Your task to perform on an android device: turn off sleep mode Image 0: 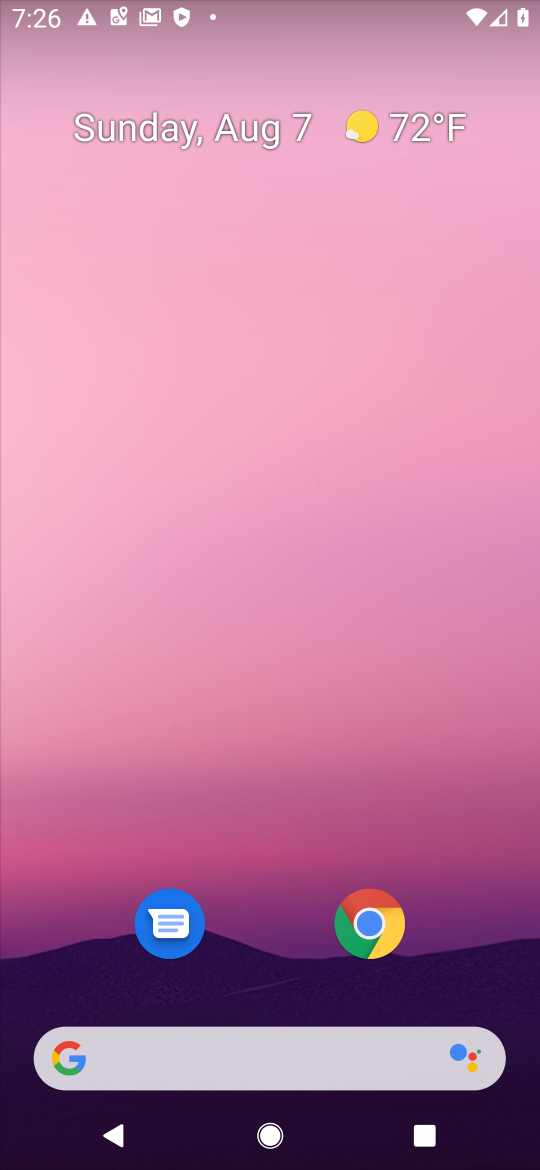
Step 0: drag from (538, 983) to (311, 0)
Your task to perform on an android device: turn off sleep mode Image 1: 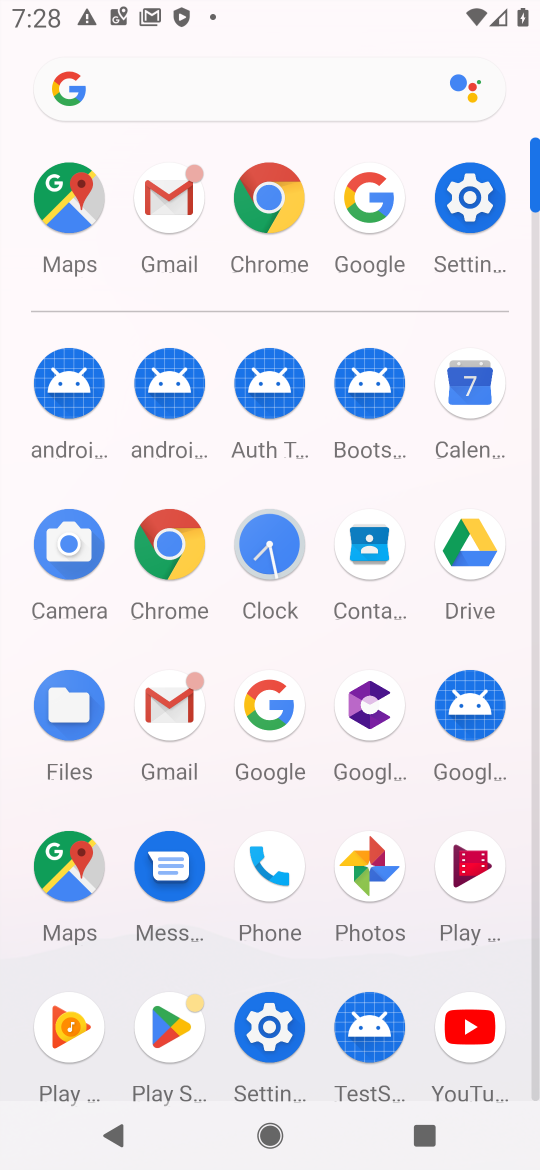
Step 1: click (266, 1060)
Your task to perform on an android device: turn off sleep mode Image 2: 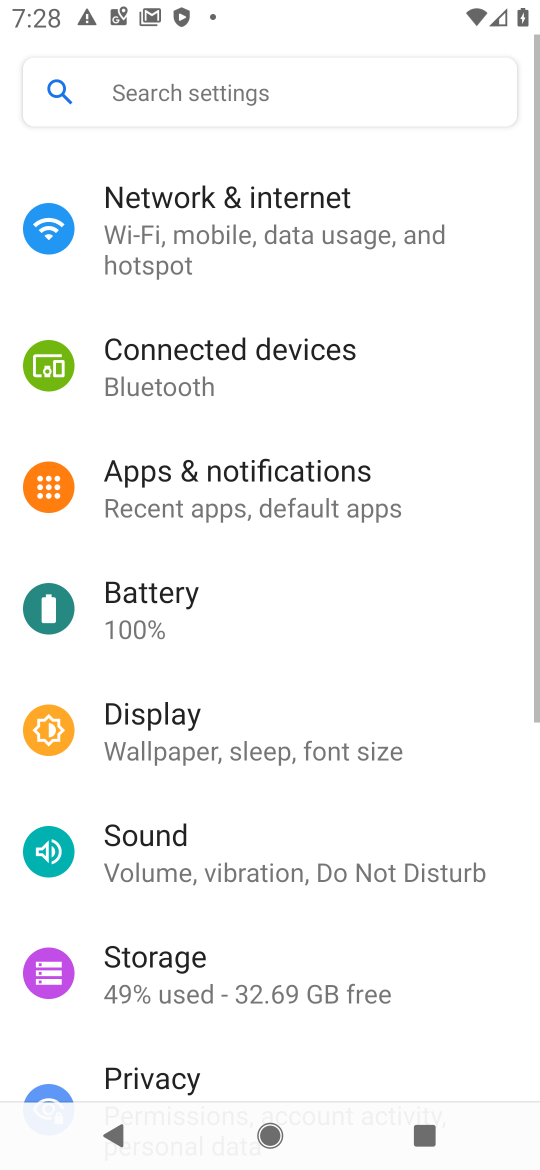
Step 2: task complete